Your task to perform on an android device: Open eBay Image 0: 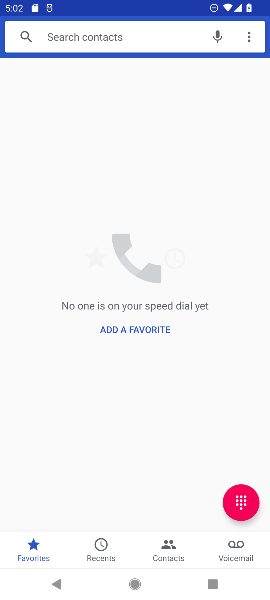
Step 0: press home button
Your task to perform on an android device: Open eBay Image 1: 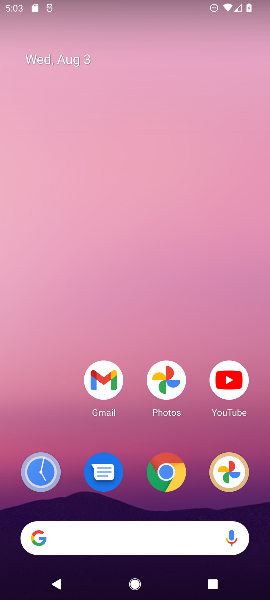
Step 1: drag from (211, 499) to (67, 9)
Your task to perform on an android device: Open eBay Image 2: 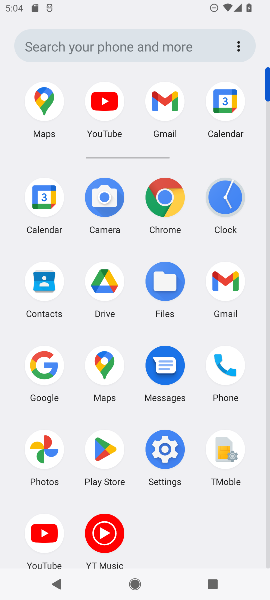
Step 2: click (40, 369)
Your task to perform on an android device: Open eBay Image 3: 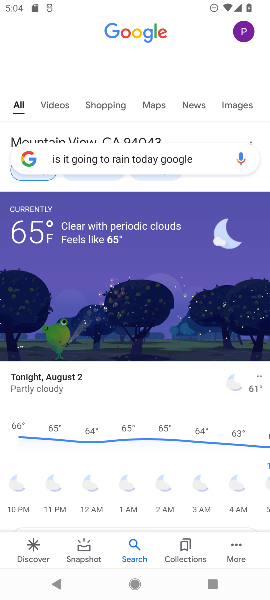
Step 3: press back button
Your task to perform on an android device: Open eBay Image 4: 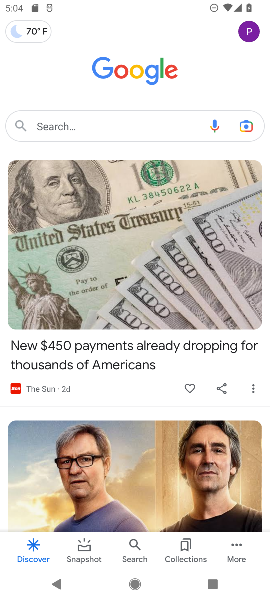
Step 4: click (76, 125)
Your task to perform on an android device: Open eBay Image 5: 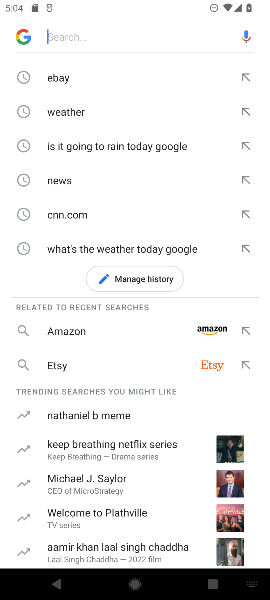
Step 5: click (66, 80)
Your task to perform on an android device: Open eBay Image 6: 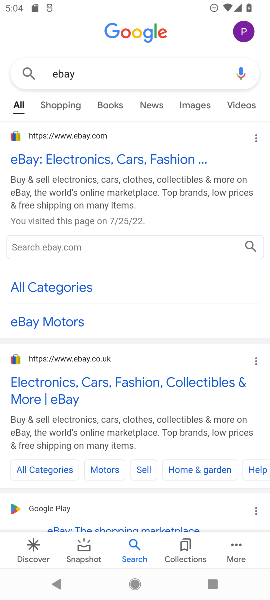
Step 6: task complete